Your task to perform on an android device: open app "Adobe Acrobat Reader: Edit PDF" (install if not already installed) Image 0: 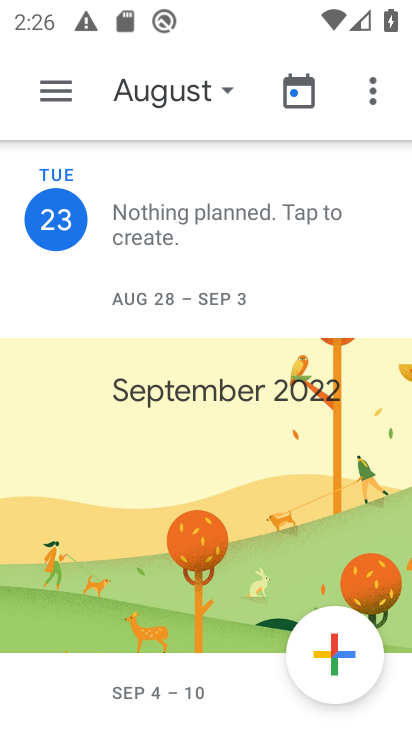
Step 0: press home button
Your task to perform on an android device: open app "Adobe Acrobat Reader: Edit PDF" (install if not already installed) Image 1: 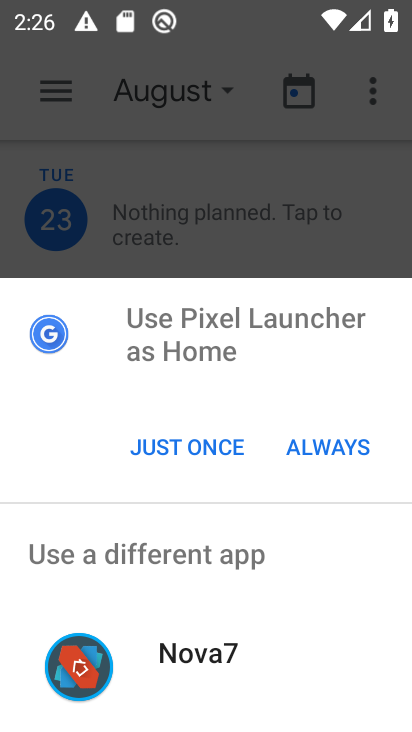
Step 1: click (181, 450)
Your task to perform on an android device: open app "Adobe Acrobat Reader: Edit PDF" (install if not already installed) Image 2: 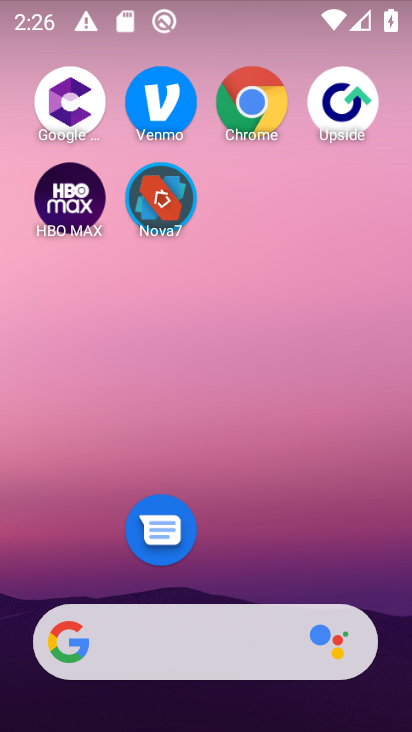
Step 2: drag from (150, 549) to (30, 10)
Your task to perform on an android device: open app "Adobe Acrobat Reader: Edit PDF" (install if not already installed) Image 3: 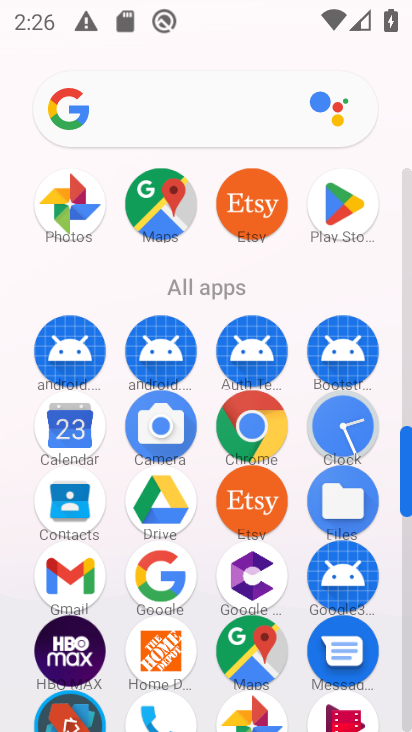
Step 3: click (335, 208)
Your task to perform on an android device: open app "Adobe Acrobat Reader: Edit PDF" (install if not already installed) Image 4: 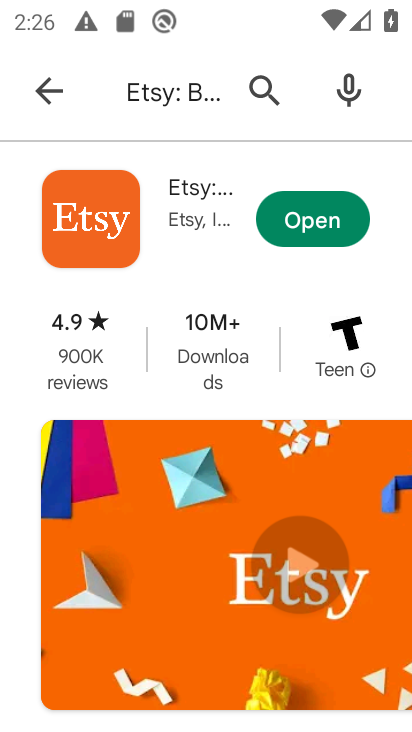
Step 4: press back button
Your task to perform on an android device: open app "Adobe Acrobat Reader: Edit PDF" (install if not already installed) Image 5: 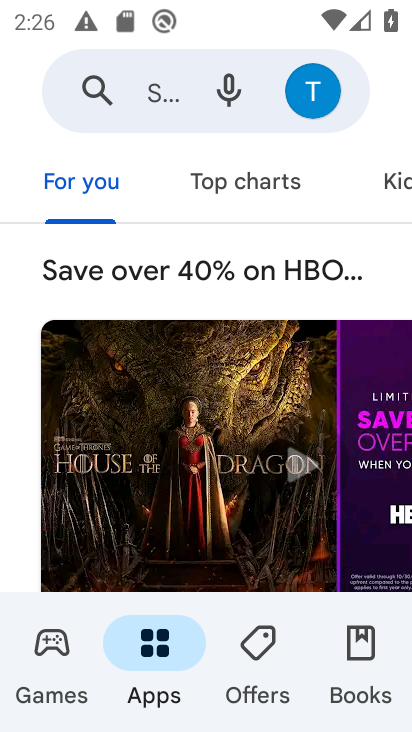
Step 5: click (174, 87)
Your task to perform on an android device: open app "Adobe Acrobat Reader: Edit PDF" (install if not already installed) Image 6: 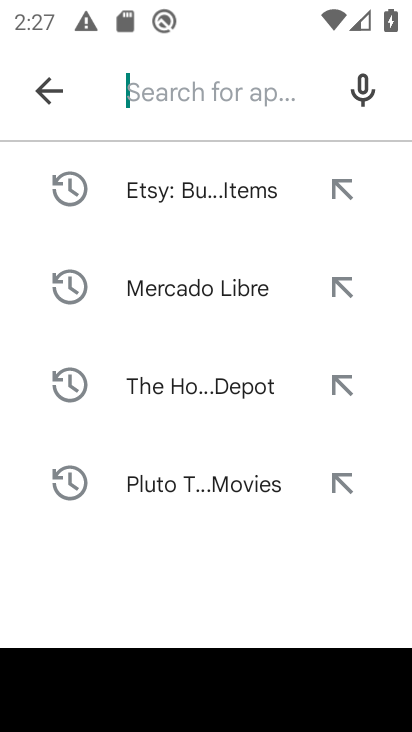
Step 6: type "Adobe Acrobat Reader: Edit PDF"
Your task to perform on an android device: open app "Adobe Acrobat Reader: Edit PDF" (install if not already installed) Image 7: 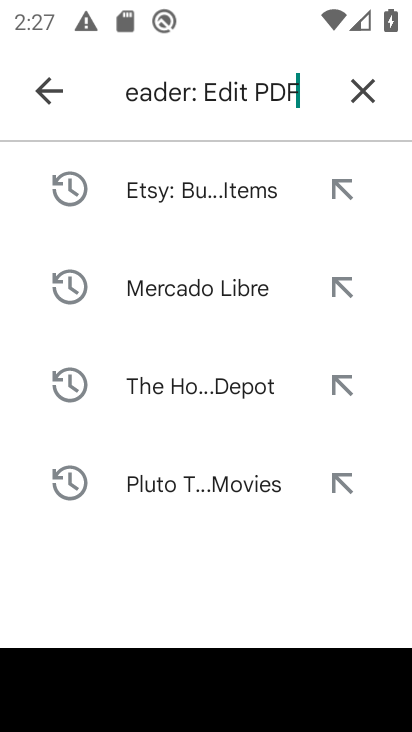
Step 7: press enter
Your task to perform on an android device: open app "Adobe Acrobat Reader: Edit PDF" (install if not already installed) Image 8: 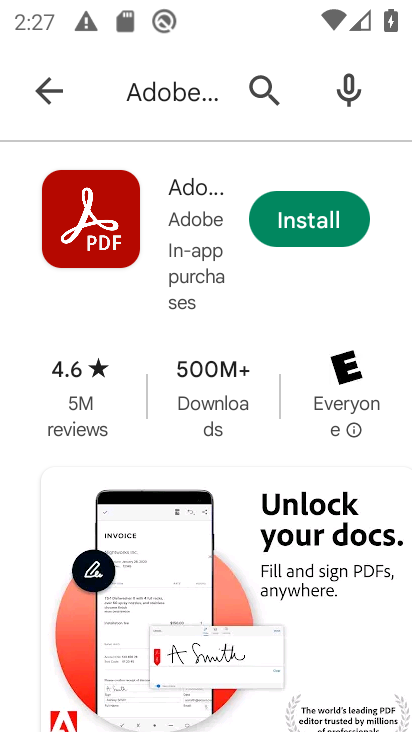
Step 8: click (299, 229)
Your task to perform on an android device: open app "Adobe Acrobat Reader: Edit PDF" (install if not already installed) Image 9: 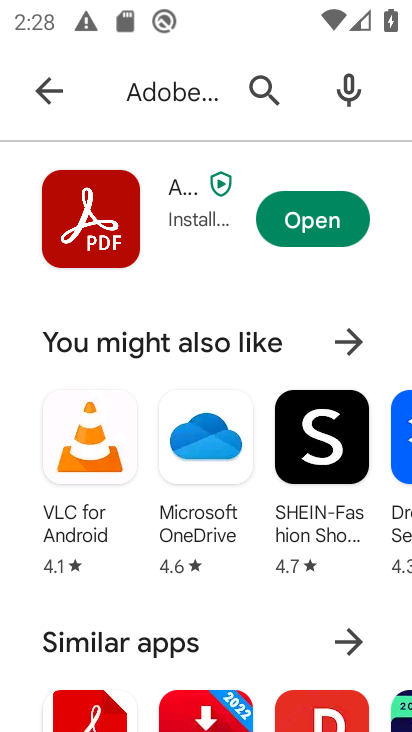
Step 9: click (304, 215)
Your task to perform on an android device: open app "Adobe Acrobat Reader: Edit PDF" (install if not already installed) Image 10: 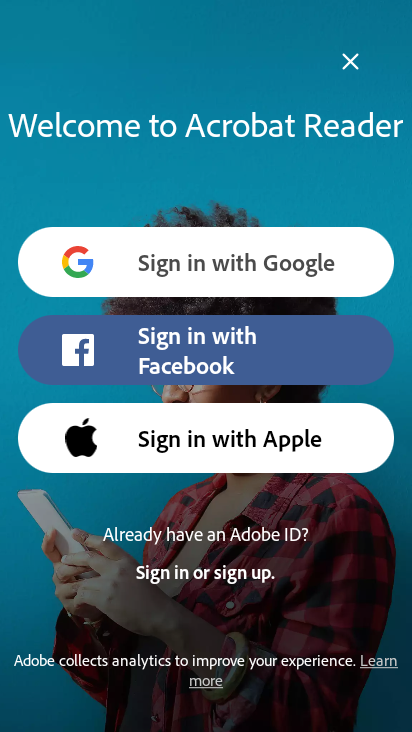
Step 10: task complete